Your task to perform on an android device: Go to battery settings Image 0: 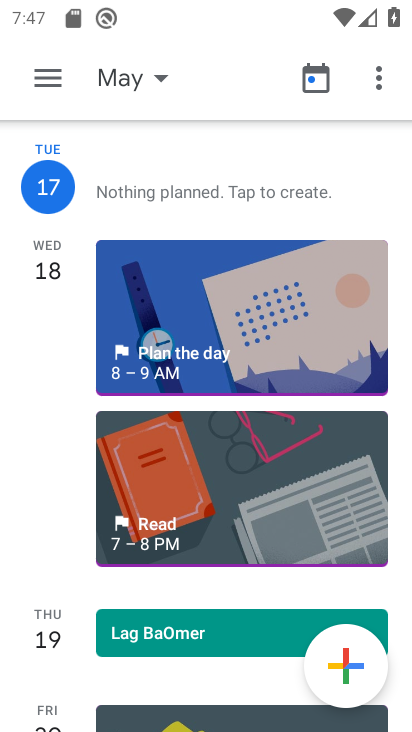
Step 0: press home button
Your task to perform on an android device: Go to battery settings Image 1: 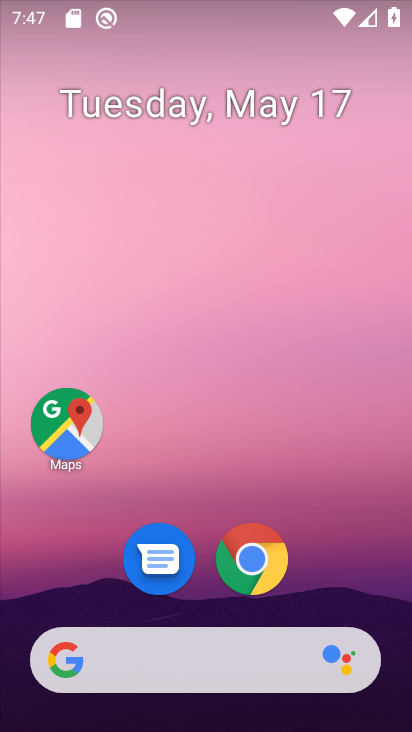
Step 1: drag from (234, 202) to (230, 54)
Your task to perform on an android device: Go to battery settings Image 2: 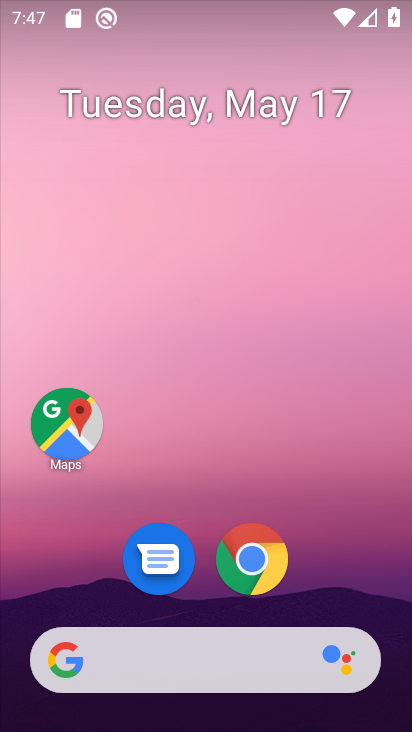
Step 2: drag from (221, 714) to (243, 210)
Your task to perform on an android device: Go to battery settings Image 3: 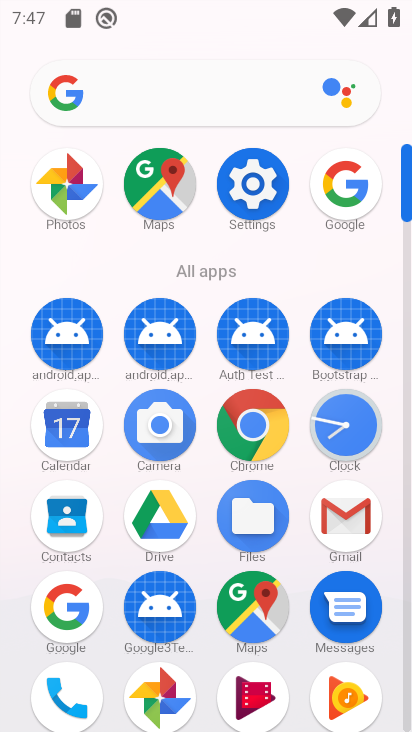
Step 3: click (253, 197)
Your task to perform on an android device: Go to battery settings Image 4: 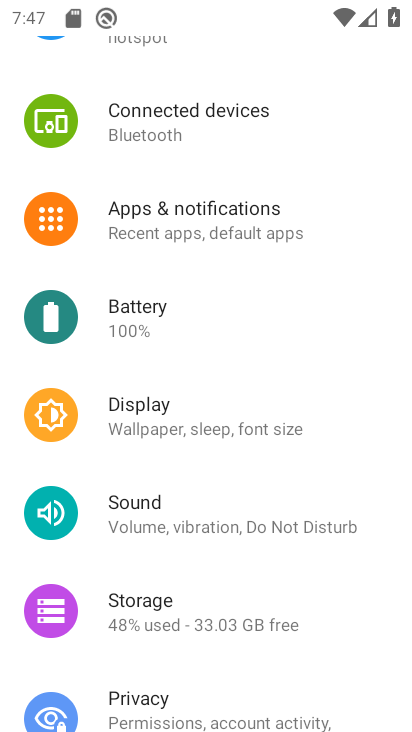
Step 4: click (180, 298)
Your task to perform on an android device: Go to battery settings Image 5: 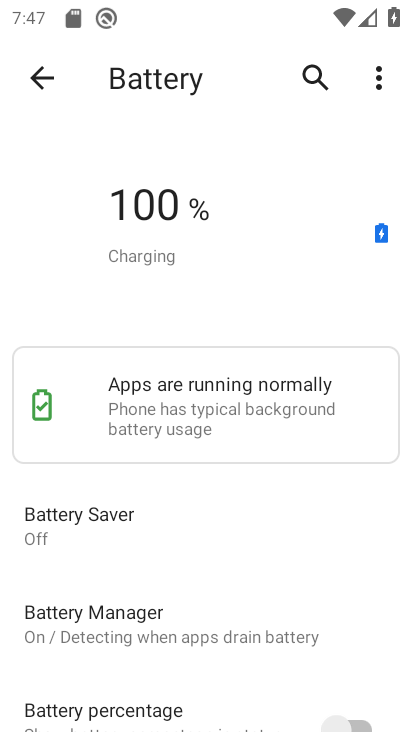
Step 5: task complete